Your task to perform on an android device: change the upload size in google photos Image 0: 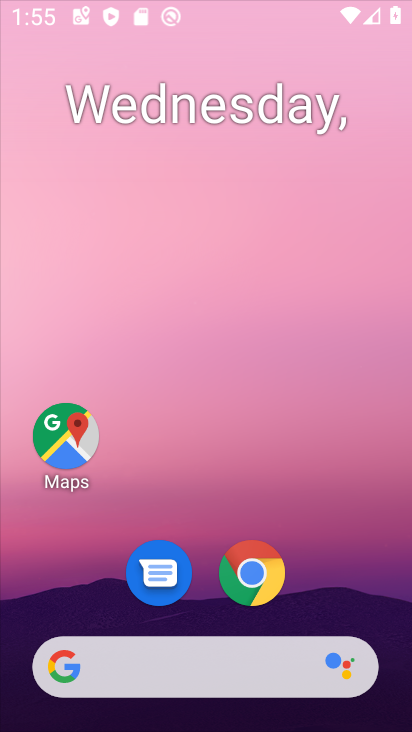
Step 0: drag from (226, 128) to (224, 75)
Your task to perform on an android device: change the upload size in google photos Image 1: 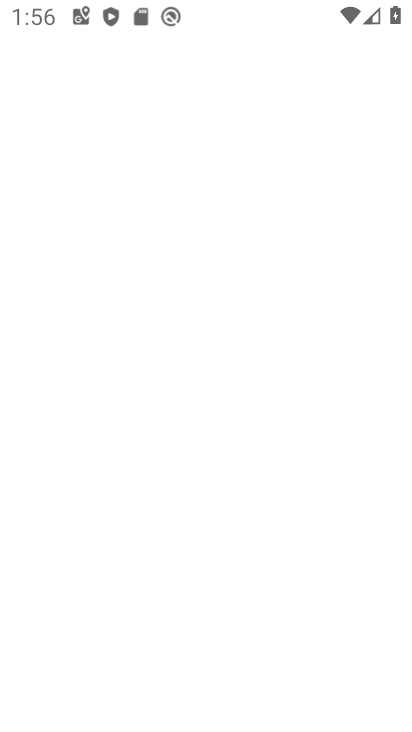
Step 1: press home button
Your task to perform on an android device: change the upload size in google photos Image 2: 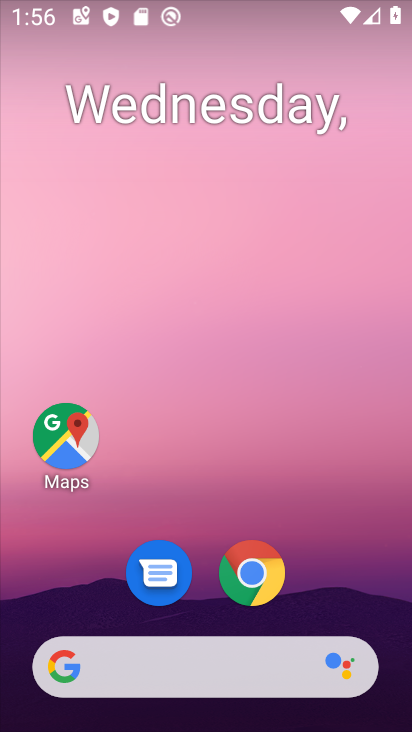
Step 2: drag from (202, 583) to (211, 205)
Your task to perform on an android device: change the upload size in google photos Image 3: 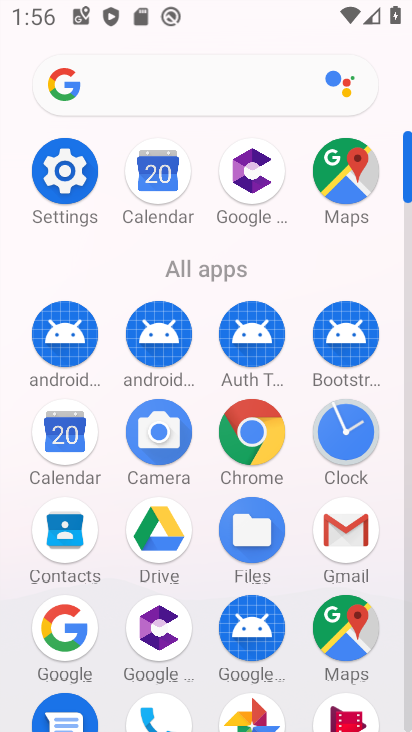
Step 3: click (250, 714)
Your task to perform on an android device: change the upload size in google photos Image 4: 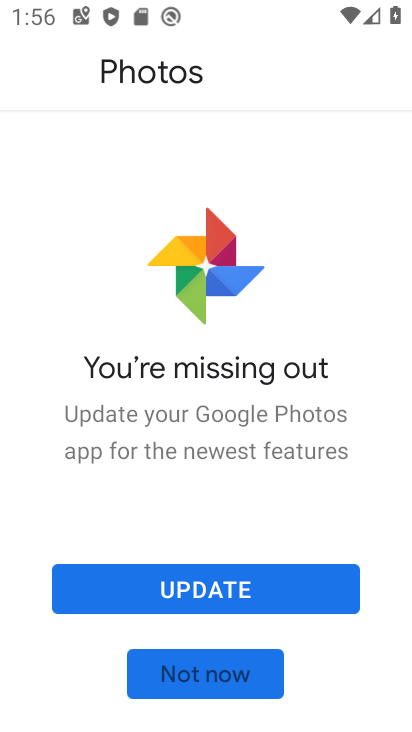
Step 4: click (203, 671)
Your task to perform on an android device: change the upload size in google photos Image 5: 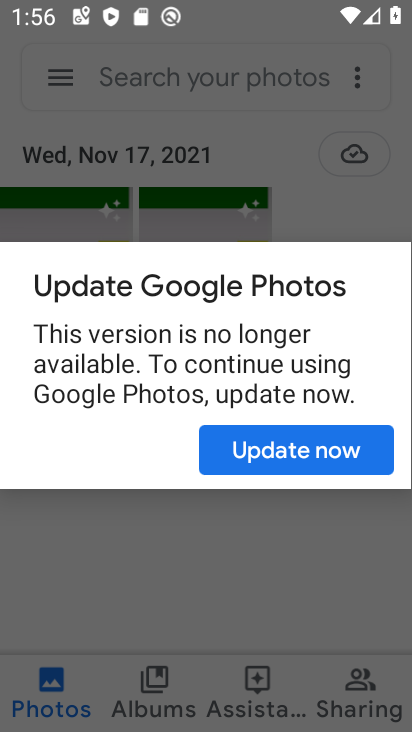
Step 5: click (299, 451)
Your task to perform on an android device: change the upload size in google photos Image 6: 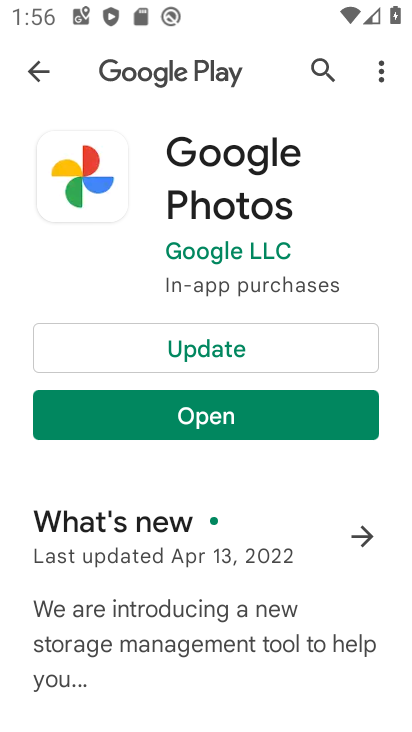
Step 6: click (156, 415)
Your task to perform on an android device: change the upload size in google photos Image 7: 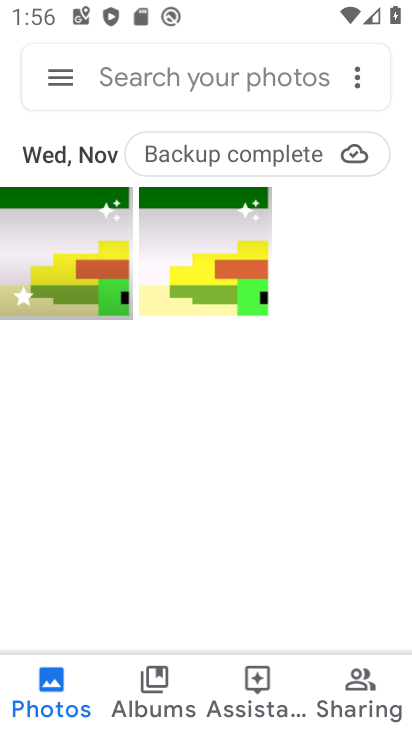
Step 7: click (61, 76)
Your task to perform on an android device: change the upload size in google photos Image 8: 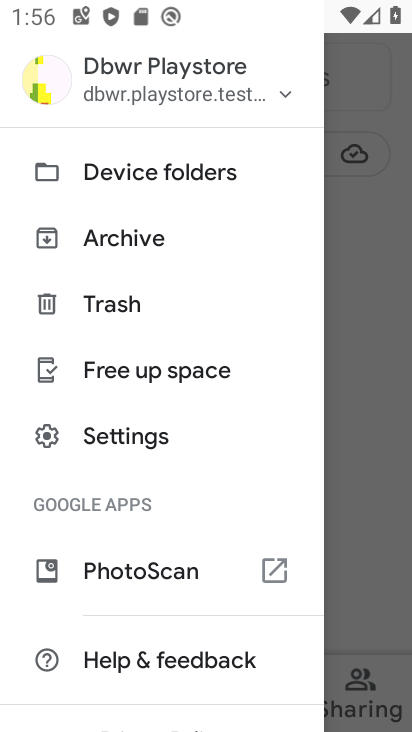
Step 8: click (107, 441)
Your task to perform on an android device: change the upload size in google photos Image 9: 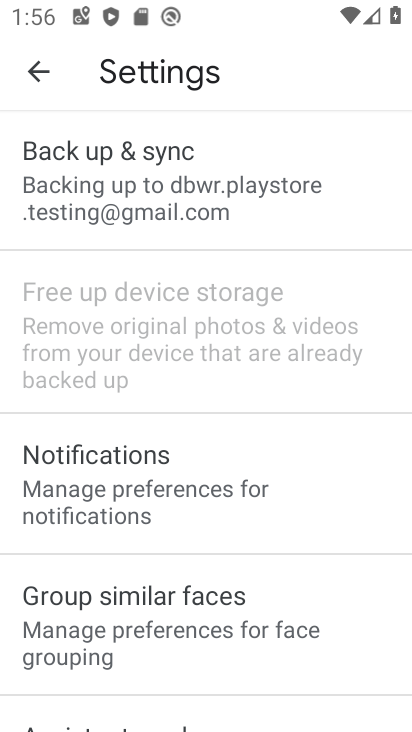
Step 9: click (143, 175)
Your task to perform on an android device: change the upload size in google photos Image 10: 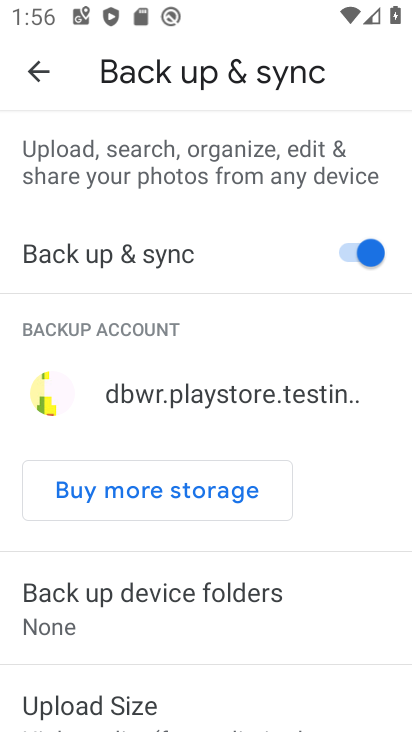
Step 10: drag from (150, 696) to (149, 441)
Your task to perform on an android device: change the upload size in google photos Image 11: 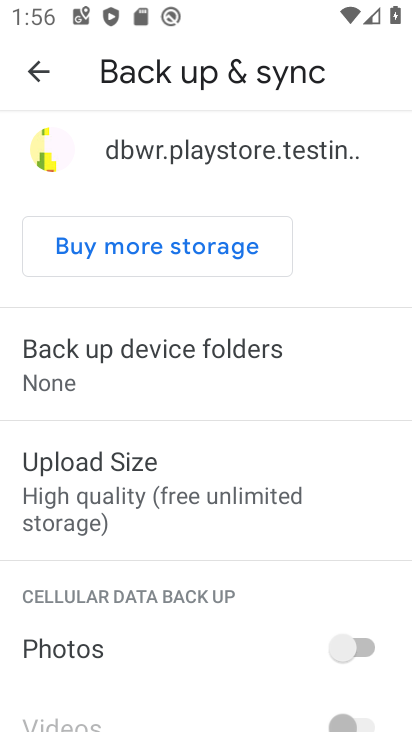
Step 11: click (92, 505)
Your task to perform on an android device: change the upload size in google photos Image 12: 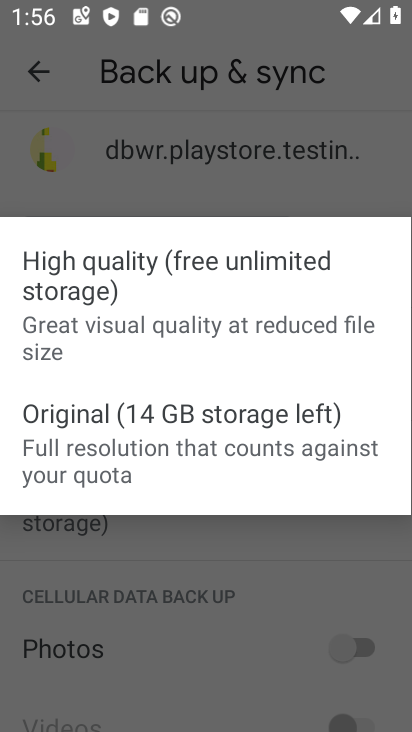
Step 12: click (91, 422)
Your task to perform on an android device: change the upload size in google photos Image 13: 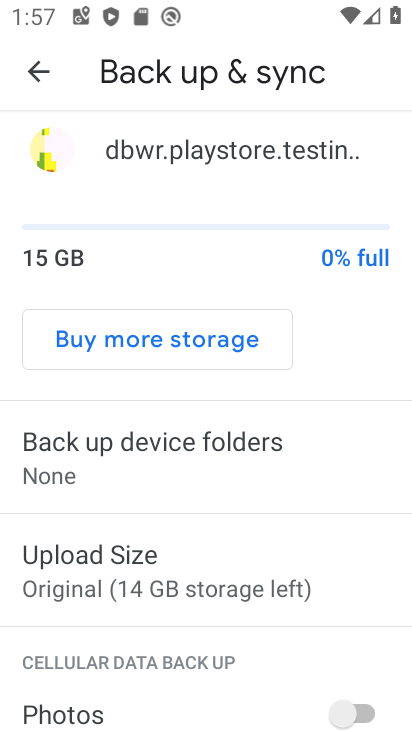
Step 13: task complete